Your task to perform on an android device: Show me recent news Image 0: 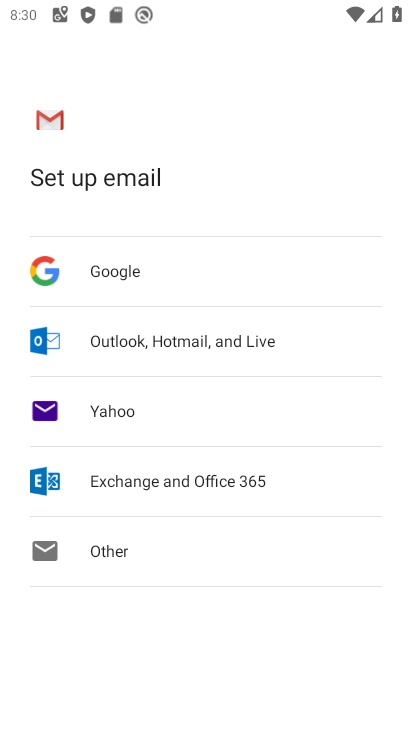
Step 0: press home button
Your task to perform on an android device: Show me recent news Image 1: 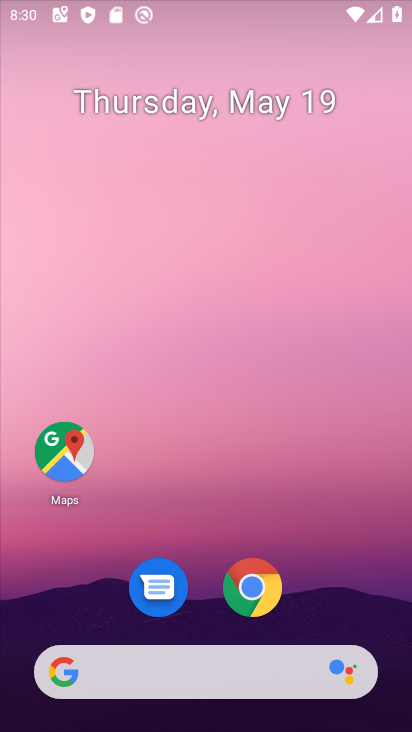
Step 1: drag from (332, 614) to (262, 72)
Your task to perform on an android device: Show me recent news Image 2: 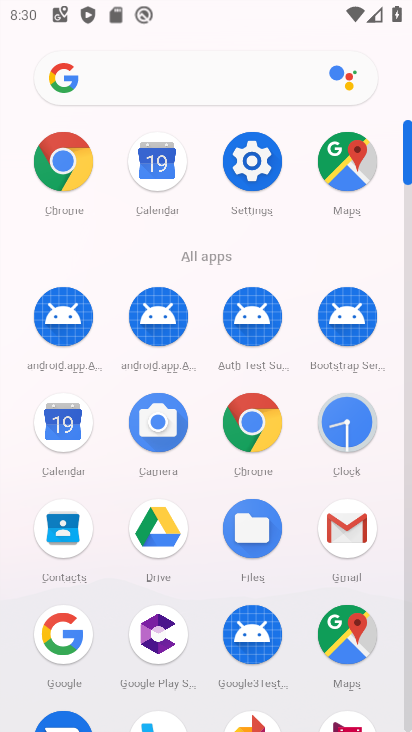
Step 2: drag from (13, 603) to (25, 294)
Your task to perform on an android device: Show me recent news Image 3: 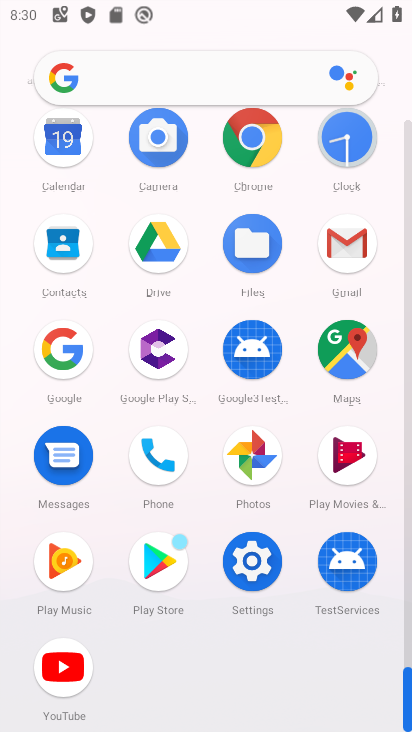
Step 3: click (252, 138)
Your task to perform on an android device: Show me recent news Image 4: 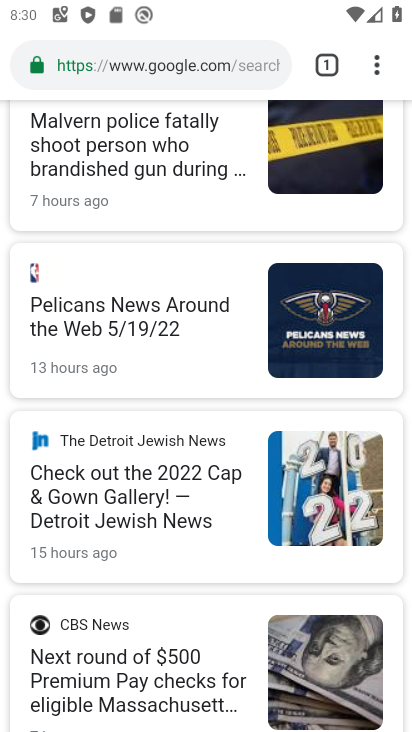
Step 4: click (161, 64)
Your task to perform on an android device: Show me recent news Image 5: 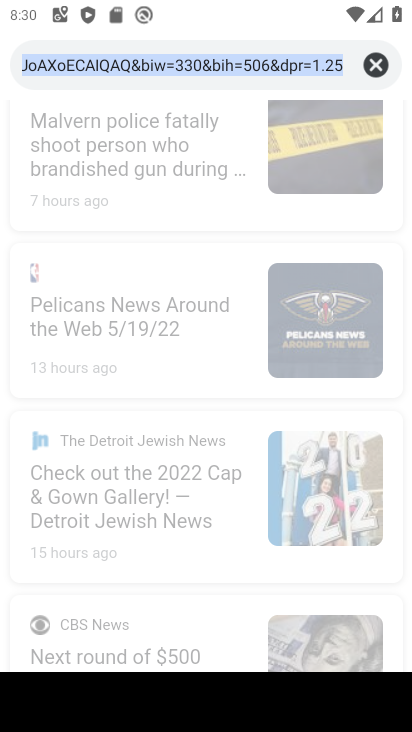
Step 5: click (379, 59)
Your task to perform on an android device: Show me recent news Image 6: 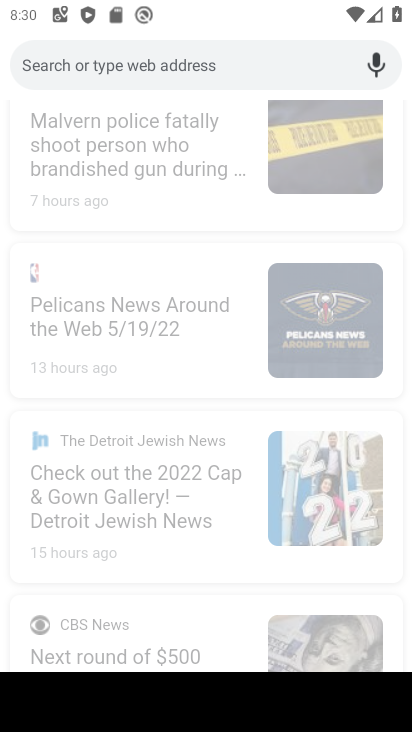
Step 6: type "Show me recent news"
Your task to perform on an android device: Show me recent news Image 7: 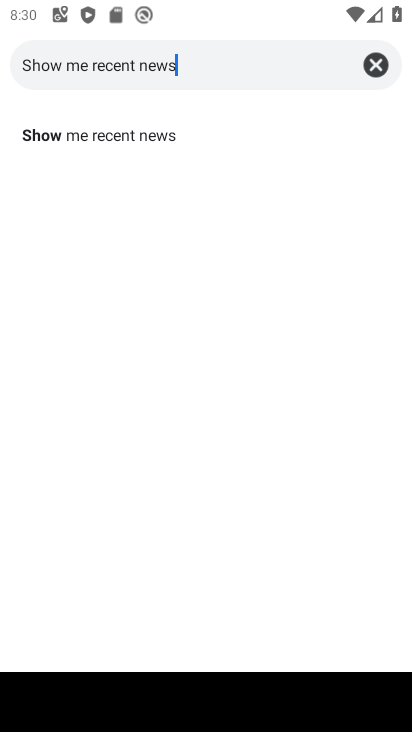
Step 7: type ""
Your task to perform on an android device: Show me recent news Image 8: 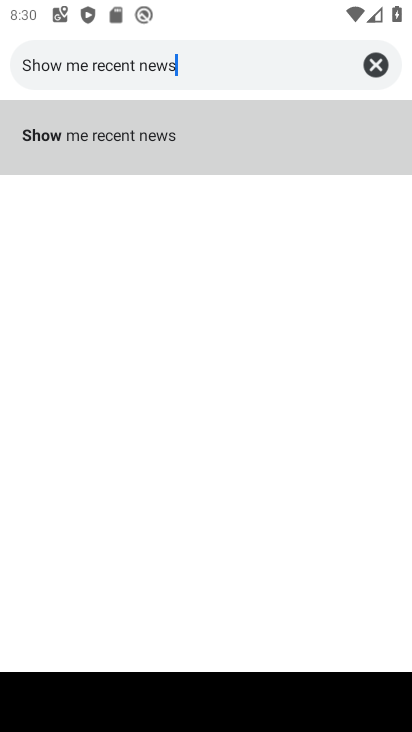
Step 8: click (122, 144)
Your task to perform on an android device: Show me recent news Image 9: 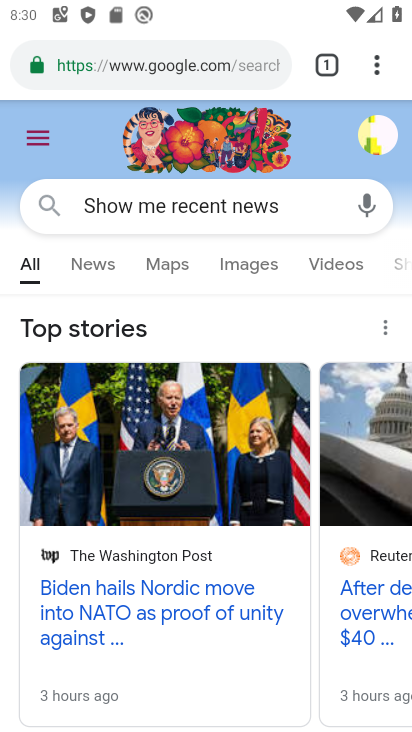
Step 9: task complete